Your task to perform on an android device: turn on sleep mode Image 0: 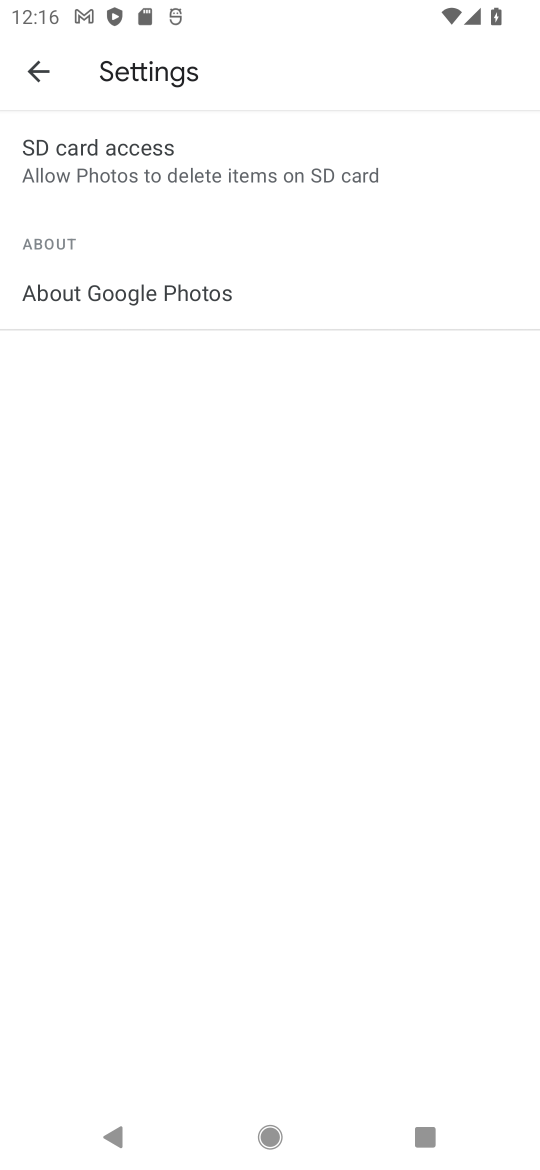
Step 0: press home button
Your task to perform on an android device: turn on sleep mode Image 1: 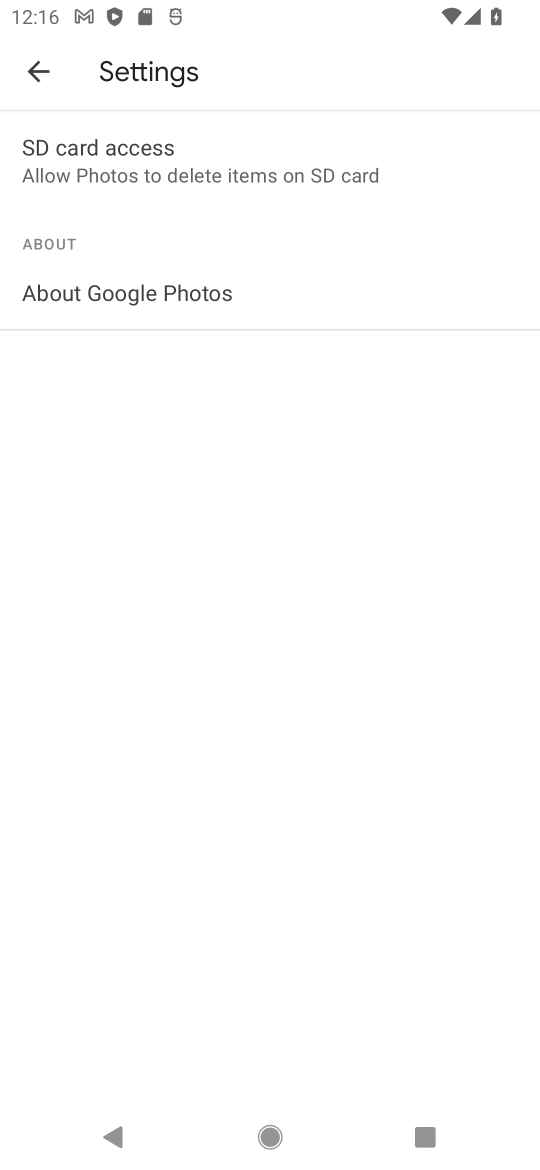
Step 1: press home button
Your task to perform on an android device: turn on sleep mode Image 2: 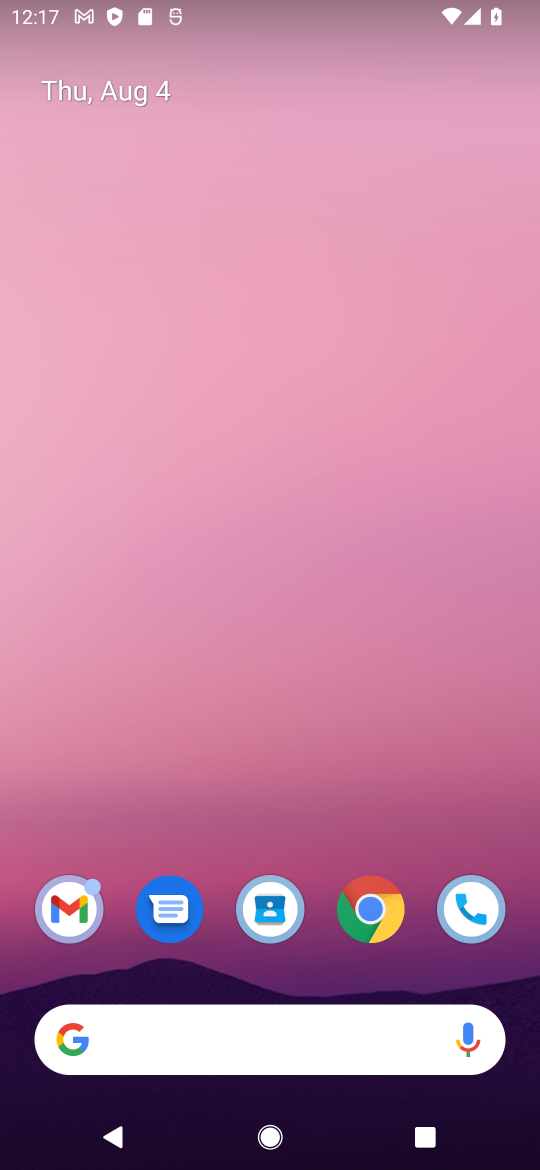
Step 2: drag from (175, 833) to (213, 34)
Your task to perform on an android device: turn on sleep mode Image 3: 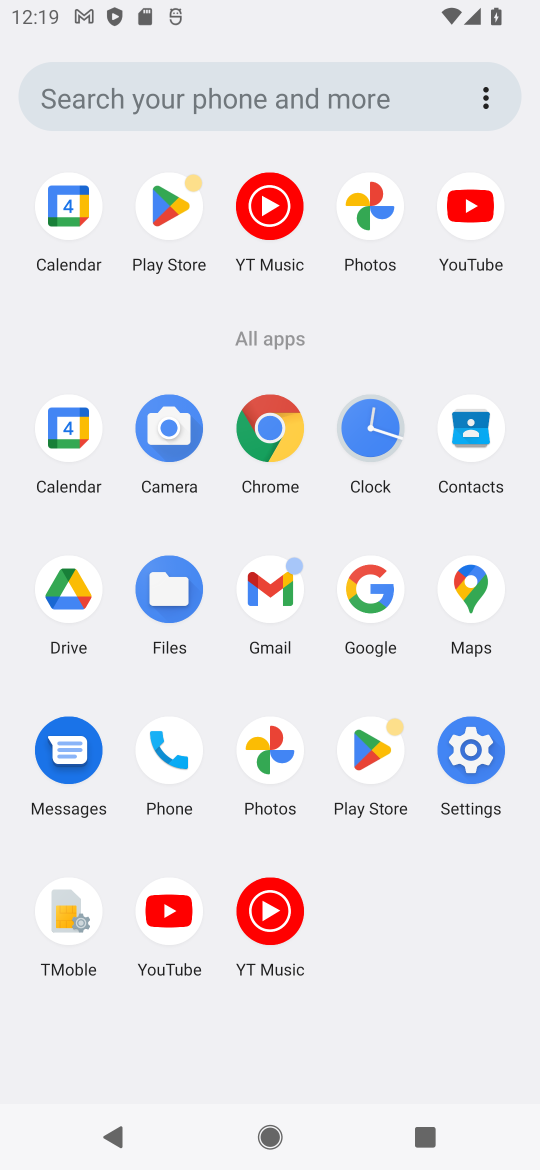
Step 3: click (475, 747)
Your task to perform on an android device: turn on sleep mode Image 4: 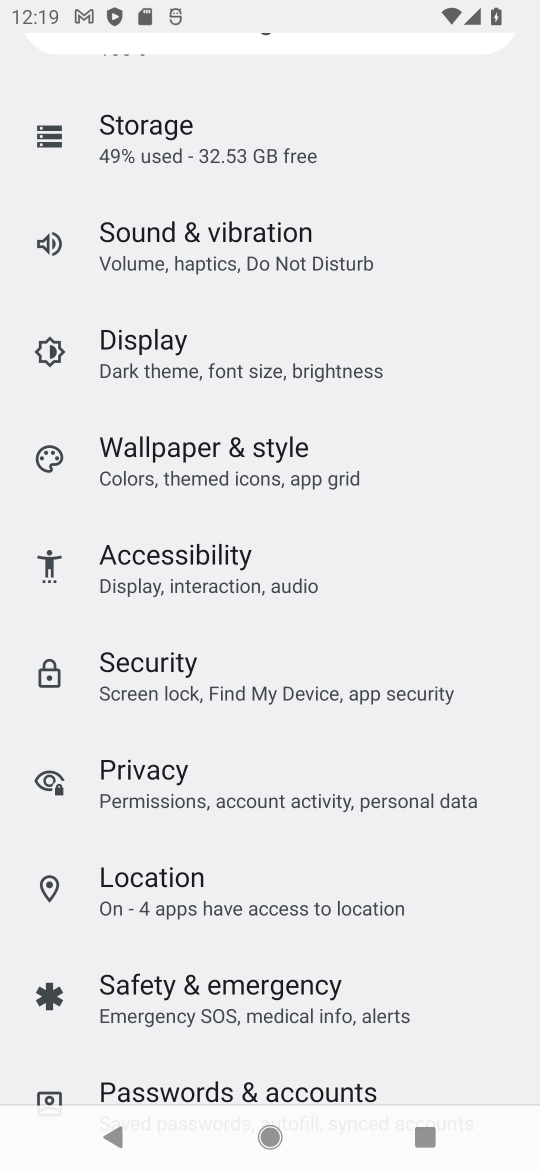
Step 4: task complete